Your task to perform on an android device: turn off translation in the chrome app Image 0: 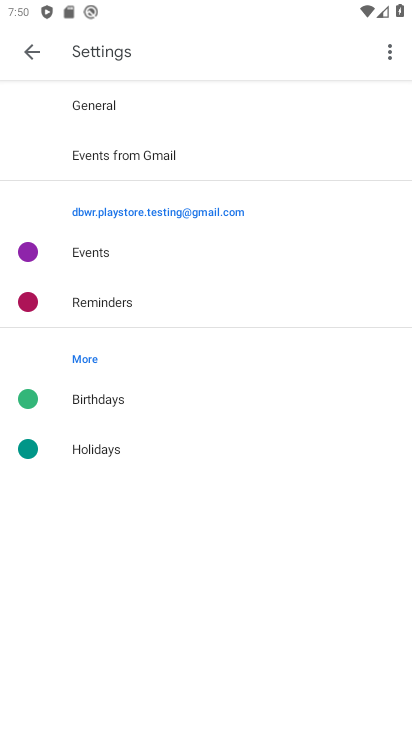
Step 0: press home button
Your task to perform on an android device: turn off translation in the chrome app Image 1: 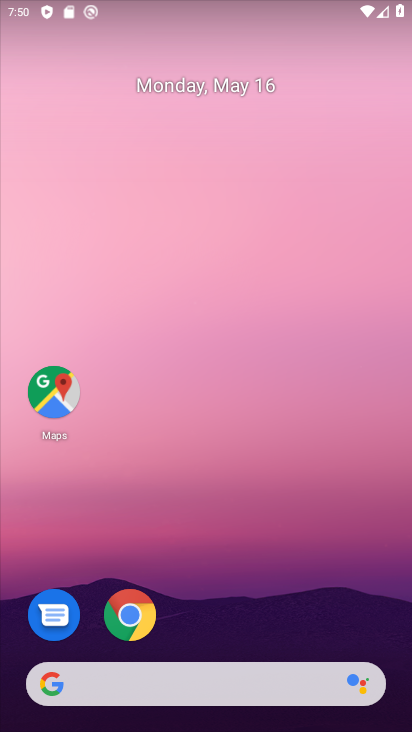
Step 1: drag from (205, 646) to (233, 136)
Your task to perform on an android device: turn off translation in the chrome app Image 2: 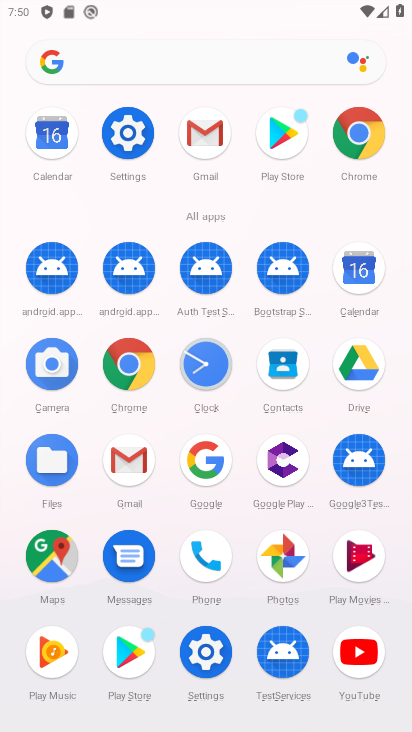
Step 2: click (351, 150)
Your task to perform on an android device: turn off translation in the chrome app Image 3: 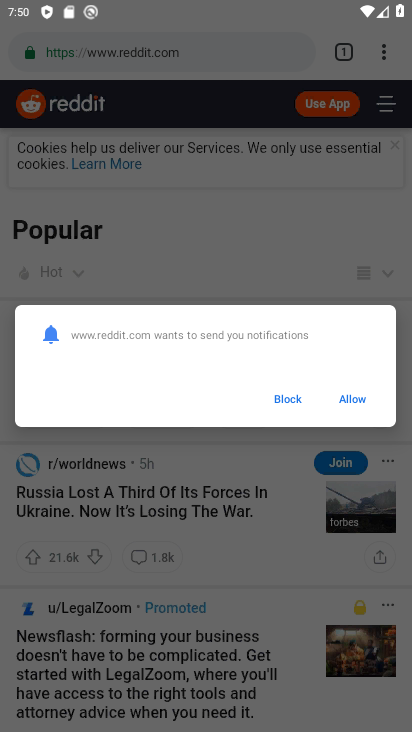
Step 3: click (286, 400)
Your task to perform on an android device: turn off translation in the chrome app Image 4: 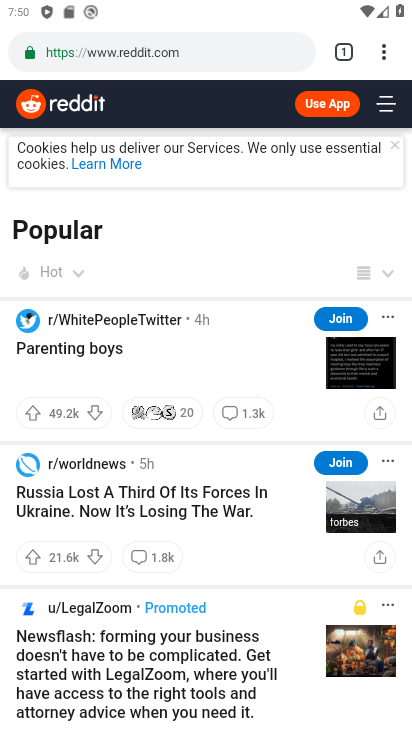
Step 4: click (384, 53)
Your task to perform on an android device: turn off translation in the chrome app Image 5: 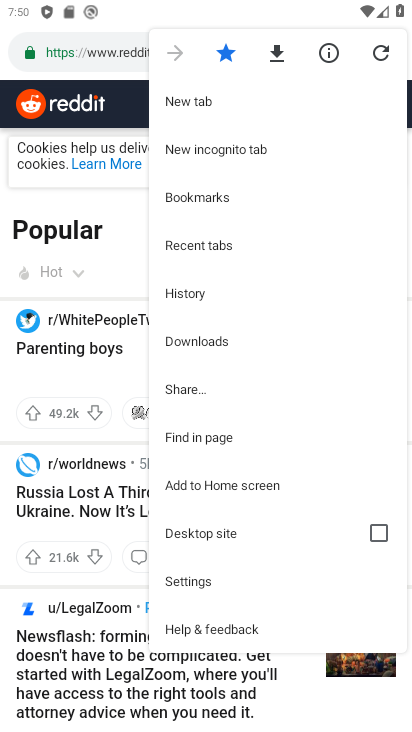
Step 5: task complete